Your task to perform on an android device: Open wifi settings Image 0: 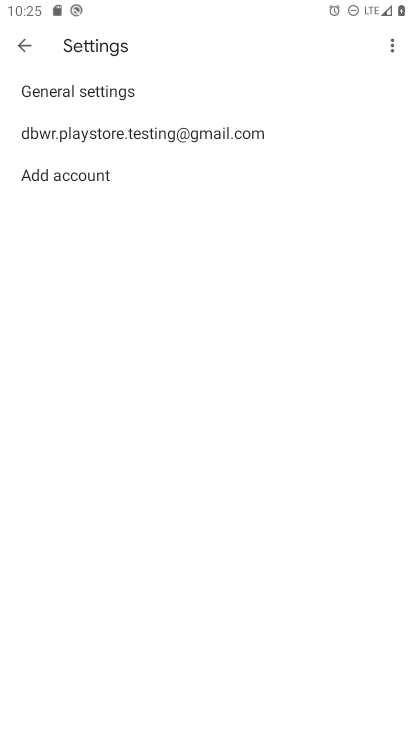
Step 0: press home button
Your task to perform on an android device: Open wifi settings Image 1: 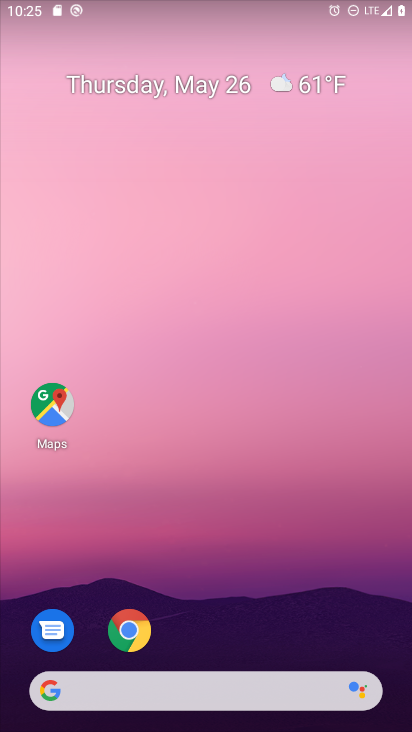
Step 1: drag from (217, 639) to (178, 138)
Your task to perform on an android device: Open wifi settings Image 2: 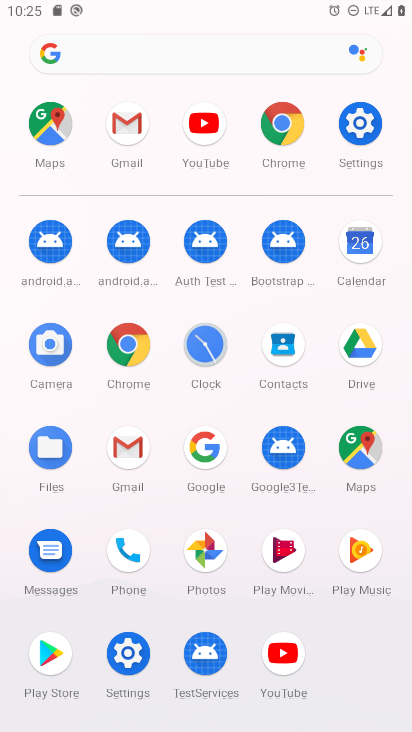
Step 2: click (350, 131)
Your task to perform on an android device: Open wifi settings Image 3: 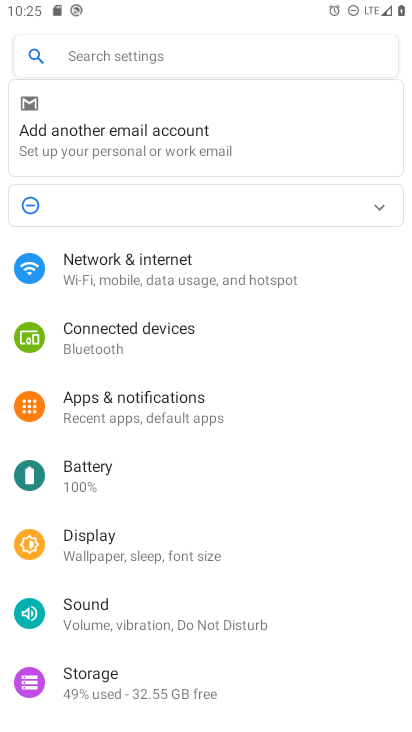
Step 3: click (138, 252)
Your task to perform on an android device: Open wifi settings Image 4: 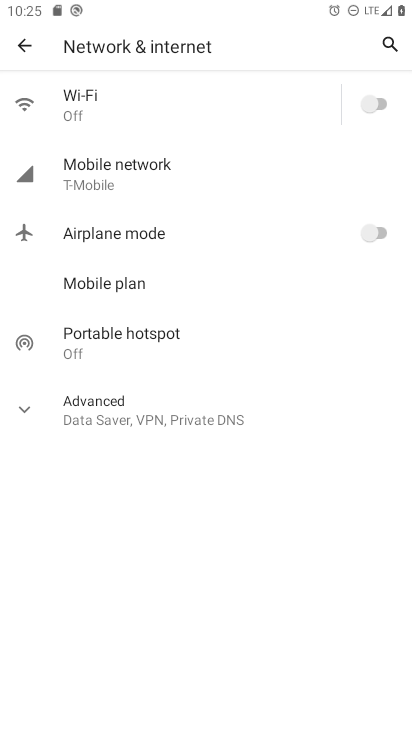
Step 4: click (76, 106)
Your task to perform on an android device: Open wifi settings Image 5: 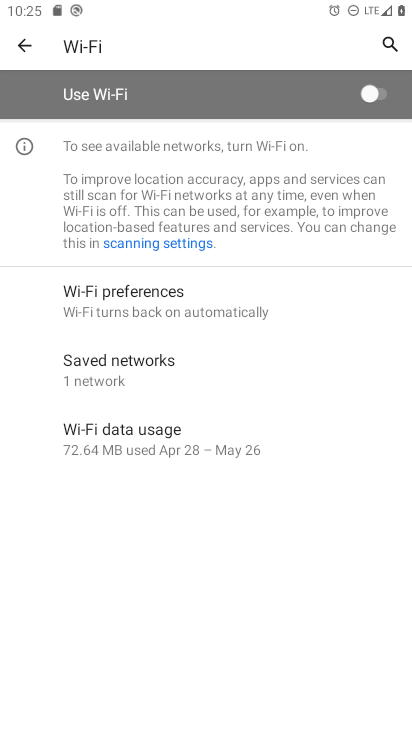
Step 5: task complete